Your task to perform on an android device: turn on bluetooth scan Image 0: 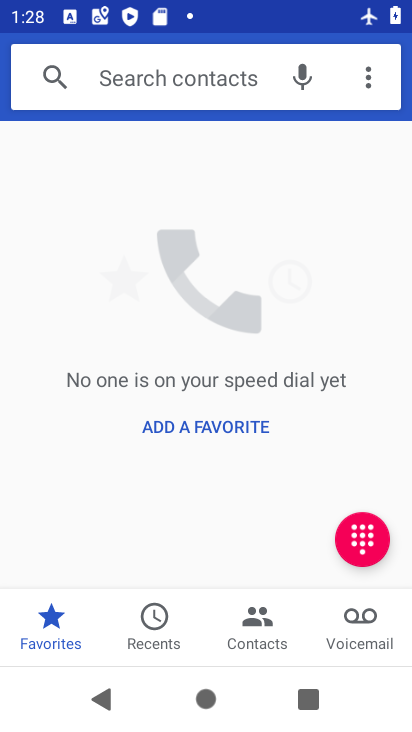
Step 0: press home button
Your task to perform on an android device: turn on bluetooth scan Image 1: 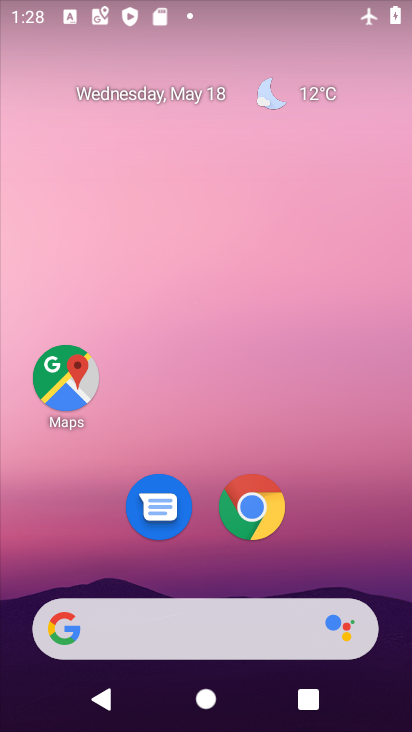
Step 1: drag from (396, 611) to (297, 142)
Your task to perform on an android device: turn on bluetooth scan Image 2: 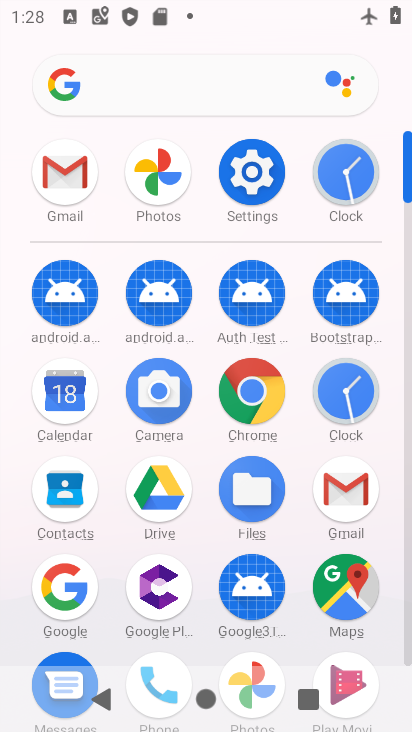
Step 2: click (407, 650)
Your task to perform on an android device: turn on bluetooth scan Image 3: 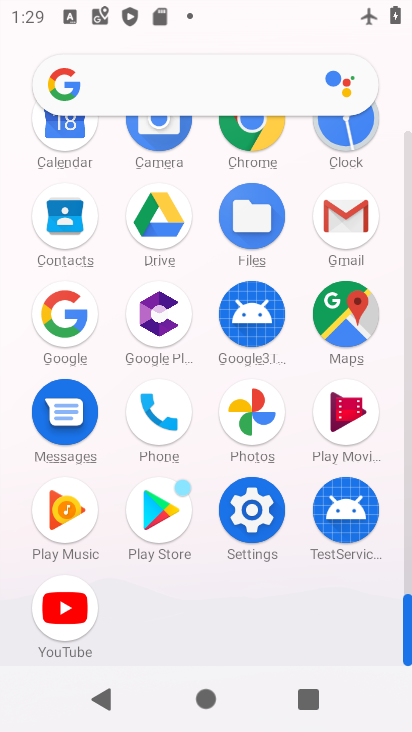
Step 3: click (253, 510)
Your task to perform on an android device: turn on bluetooth scan Image 4: 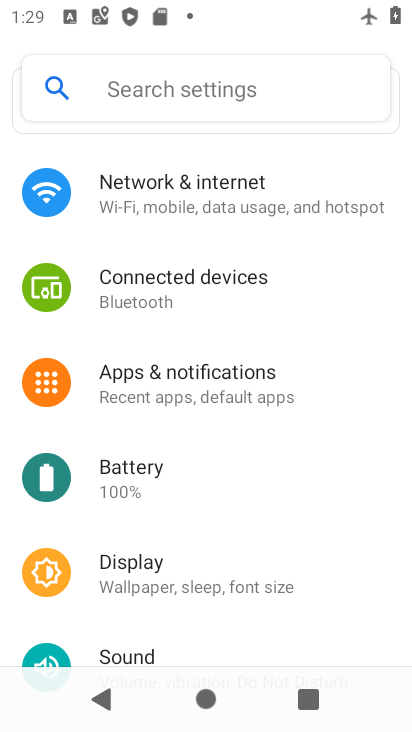
Step 4: drag from (289, 619) to (259, 230)
Your task to perform on an android device: turn on bluetooth scan Image 5: 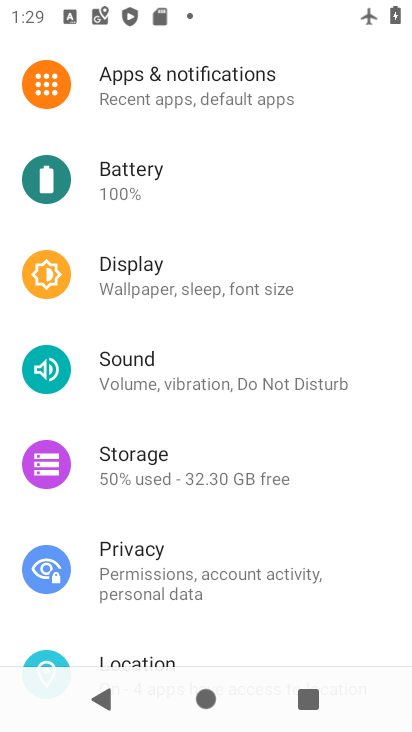
Step 5: drag from (320, 644) to (267, 199)
Your task to perform on an android device: turn on bluetooth scan Image 6: 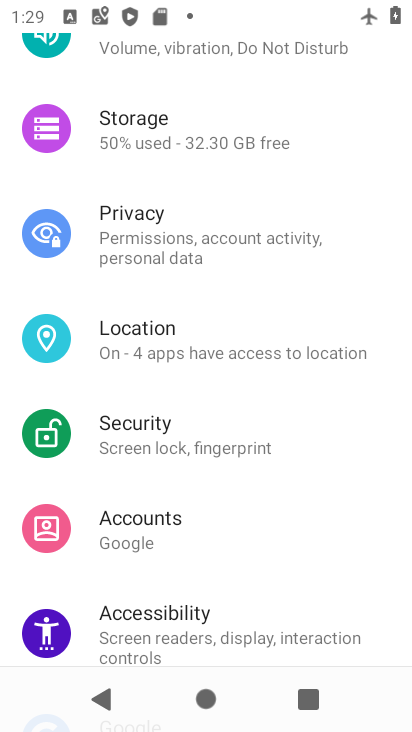
Step 6: click (142, 326)
Your task to perform on an android device: turn on bluetooth scan Image 7: 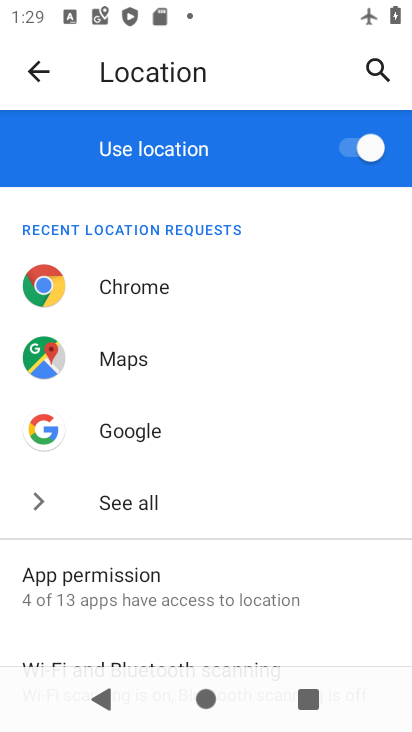
Step 7: drag from (253, 533) to (227, 209)
Your task to perform on an android device: turn on bluetooth scan Image 8: 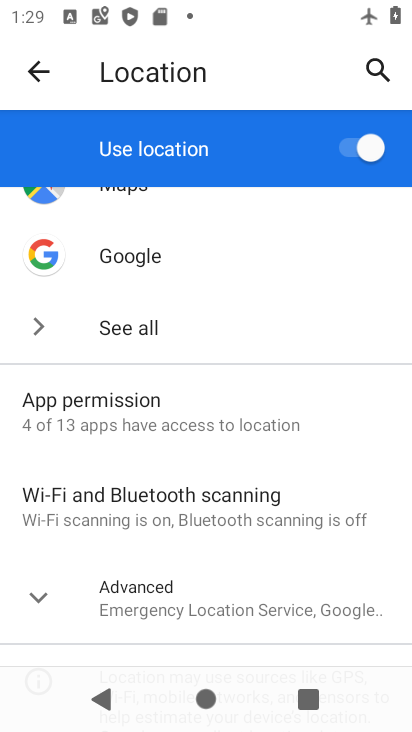
Step 8: click (150, 526)
Your task to perform on an android device: turn on bluetooth scan Image 9: 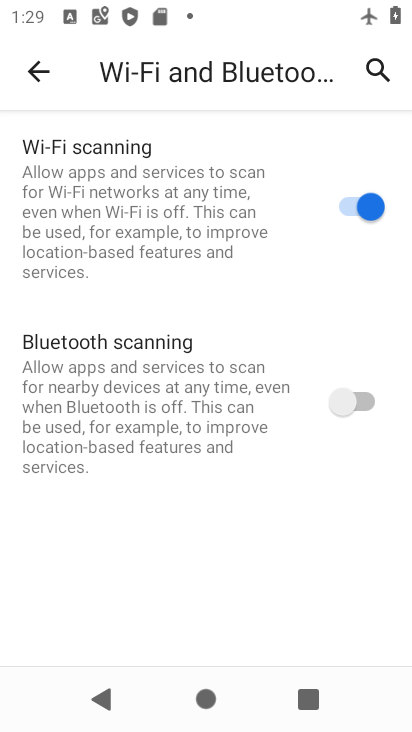
Step 9: click (359, 397)
Your task to perform on an android device: turn on bluetooth scan Image 10: 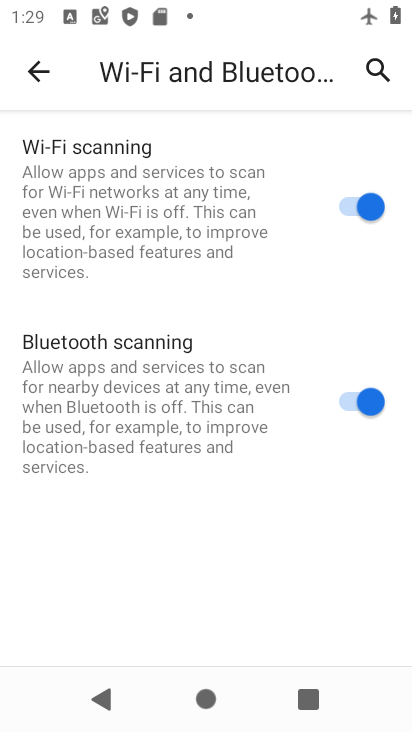
Step 10: task complete